Your task to perform on an android device: set an alarm Image 0: 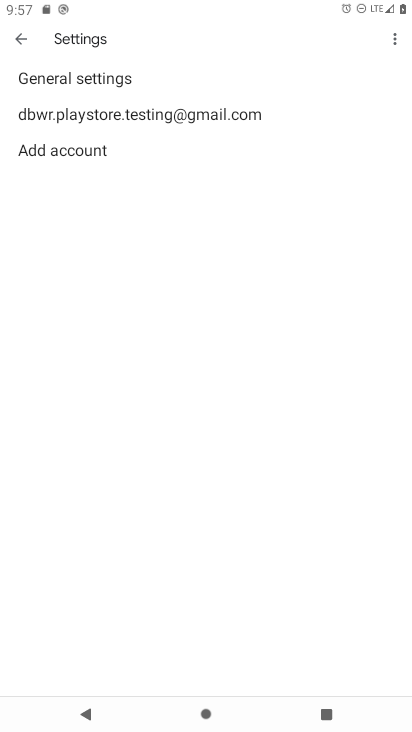
Step 0: press home button
Your task to perform on an android device: set an alarm Image 1: 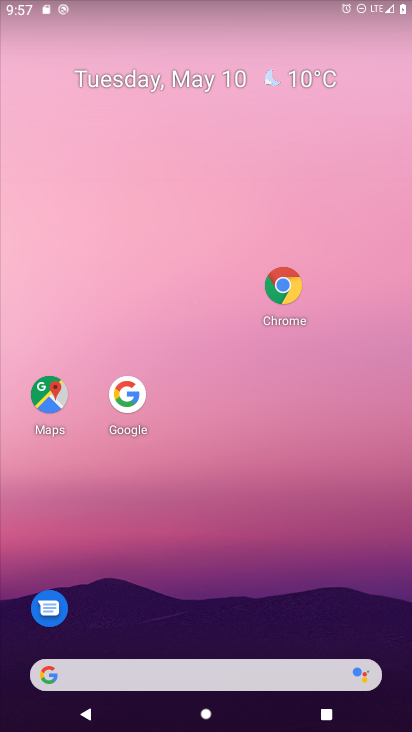
Step 1: drag from (181, 673) to (288, 156)
Your task to perform on an android device: set an alarm Image 2: 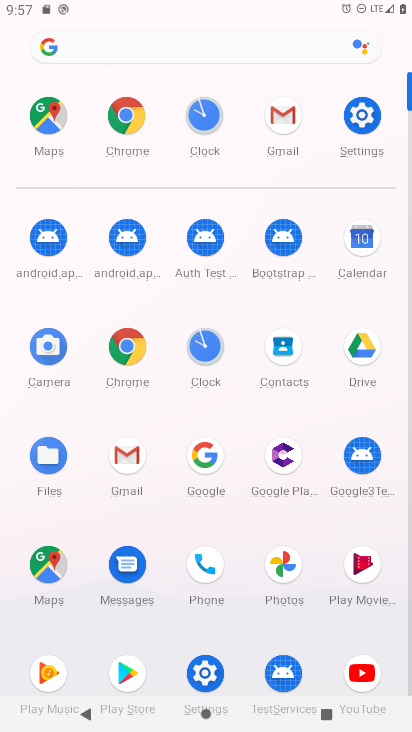
Step 2: click (209, 354)
Your task to perform on an android device: set an alarm Image 3: 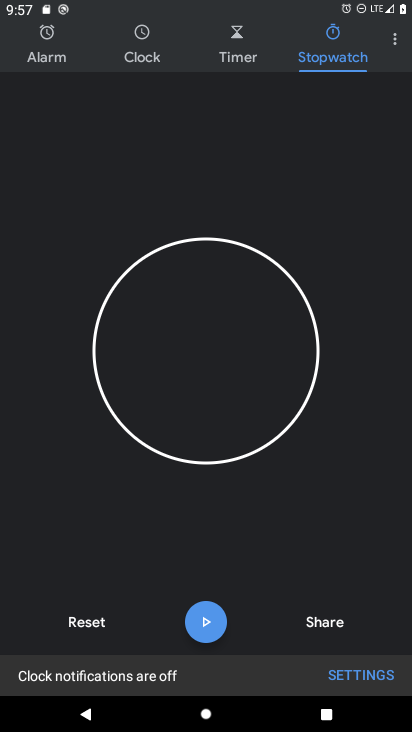
Step 3: click (58, 55)
Your task to perform on an android device: set an alarm Image 4: 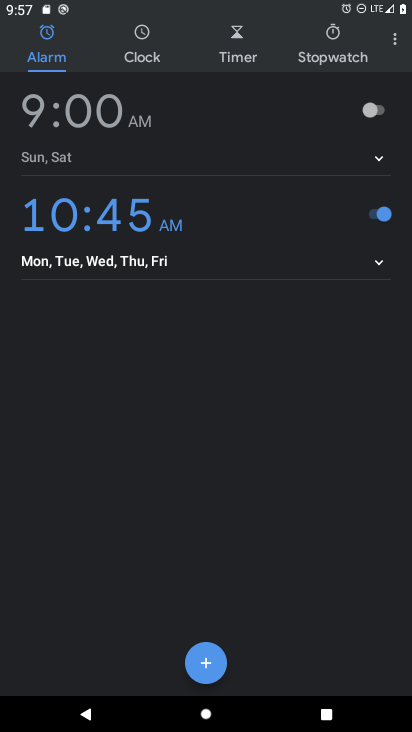
Step 4: click (126, 139)
Your task to perform on an android device: set an alarm Image 5: 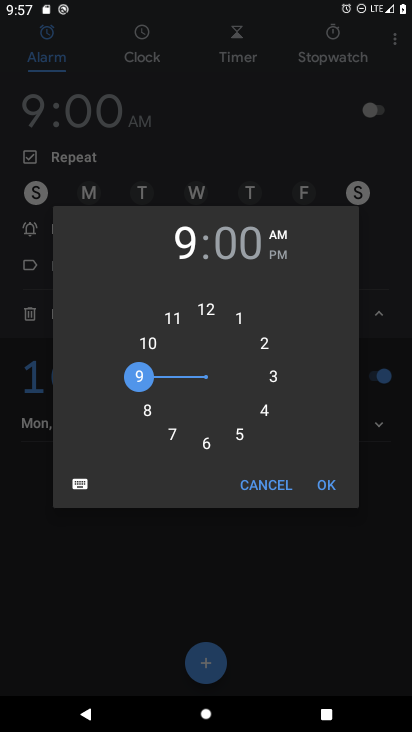
Step 5: click (144, 411)
Your task to perform on an android device: set an alarm Image 6: 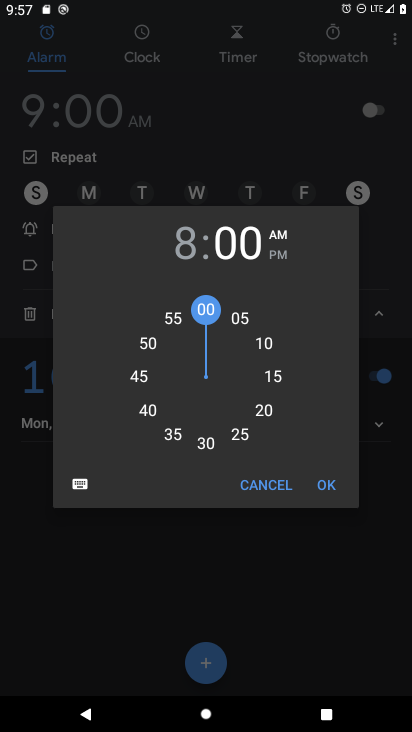
Step 6: click (318, 487)
Your task to perform on an android device: set an alarm Image 7: 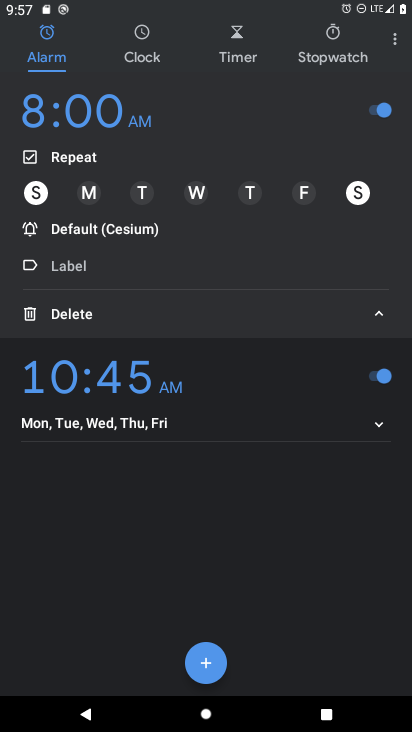
Step 7: task complete